Your task to perform on an android device: all mails in gmail Image 0: 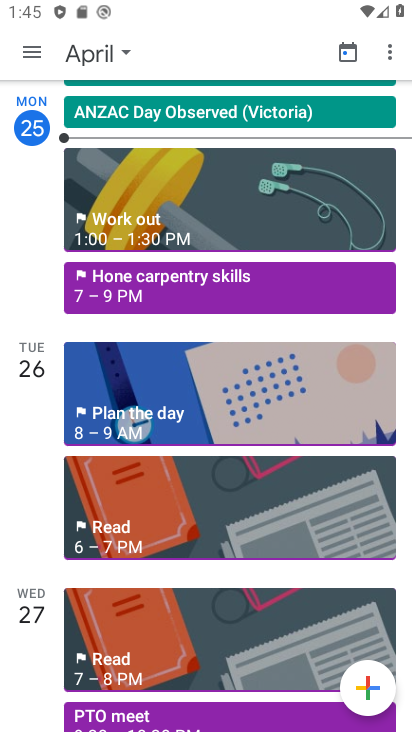
Step 0: press home button
Your task to perform on an android device: all mails in gmail Image 1: 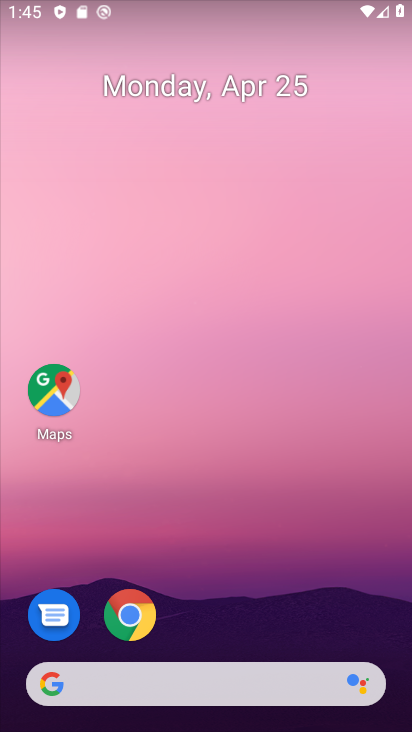
Step 1: drag from (335, 610) to (335, 36)
Your task to perform on an android device: all mails in gmail Image 2: 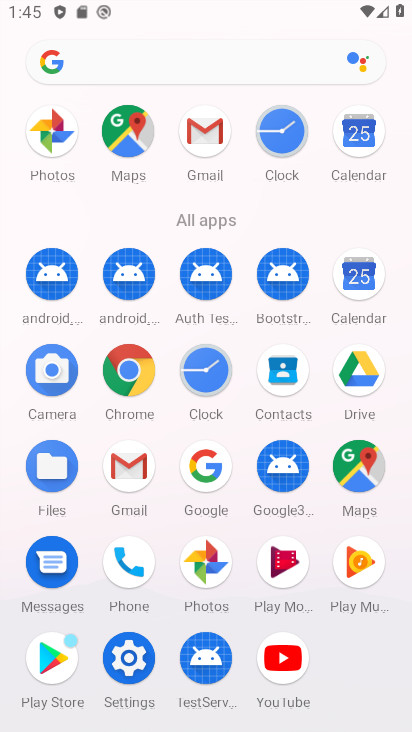
Step 2: click (146, 458)
Your task to perform on an android device: all mails in gmail Image 3: 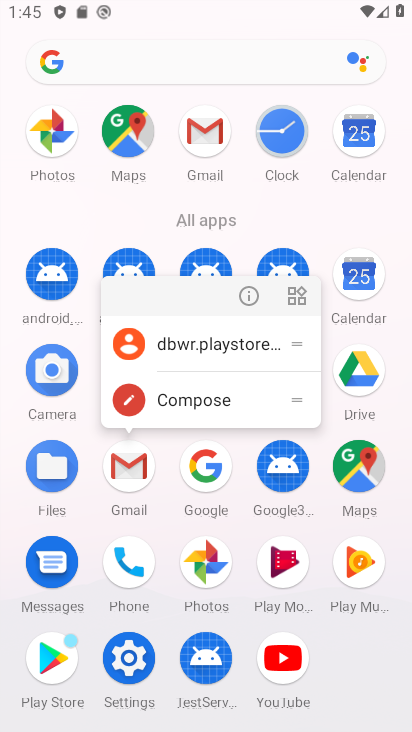
Step 3: click (144, 462)
Your task to perform on an android device: all mails in gmail Image 4: 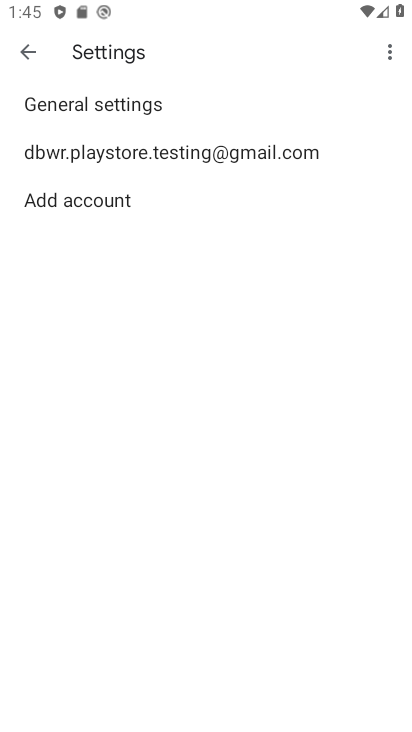
Step 4: click (36, 48)
Your task to perform on an android device: all mails in gmail Image 5: 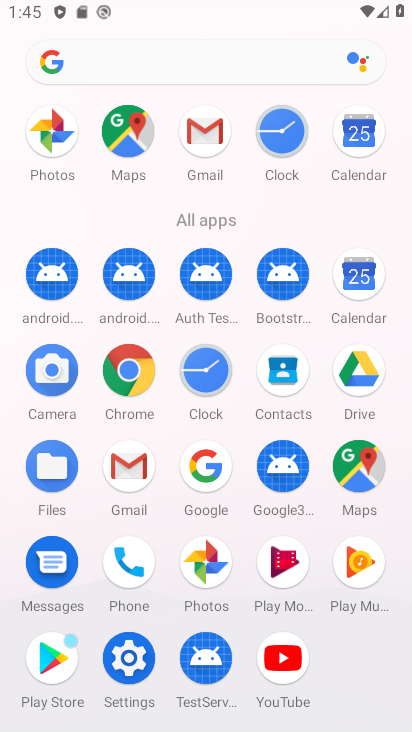
Step 5: click (214, 131)
Your task to perform on an android device: all mails in gmail Image 6: 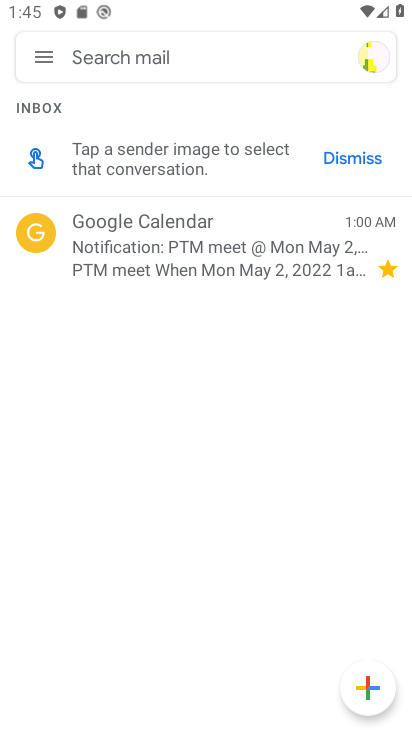
Step 6: click (42, 60)
Your task to perform on an android device: all mails in gmail Image 7: 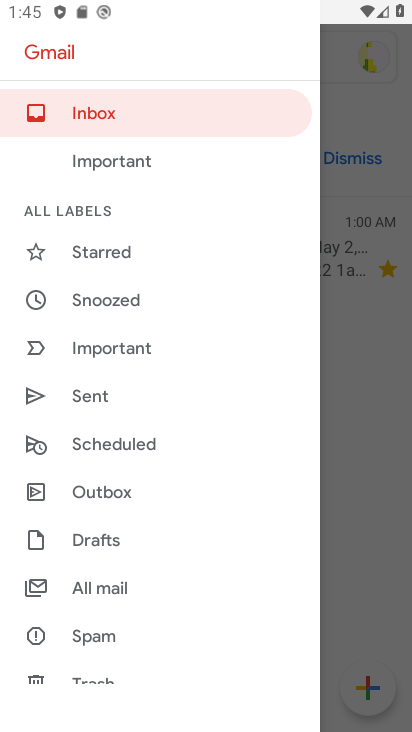
Step 7: drag from (222, 594) to (230, 378)
Your task to perform on an android device: all mails in gmail Image 8: 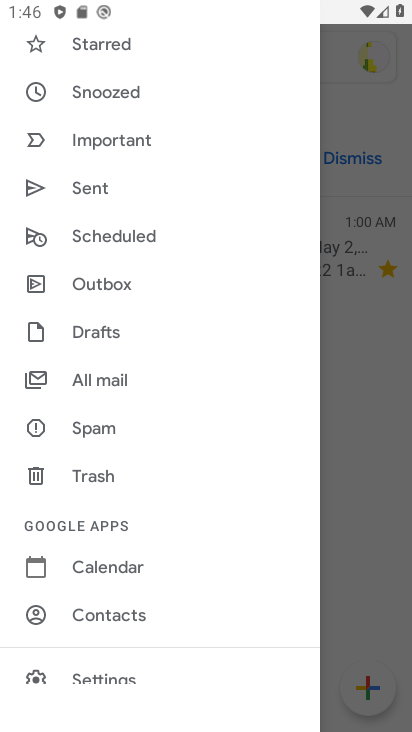
Step 8: click (116, 371)
Your task to perform on an android device: all mails in gmail Image 9: 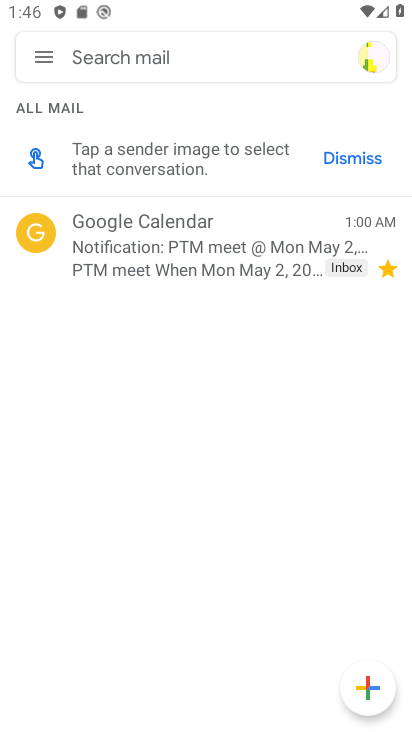
Step 9: task complete